Your task to perform on an android device: show emergency info Image 0: 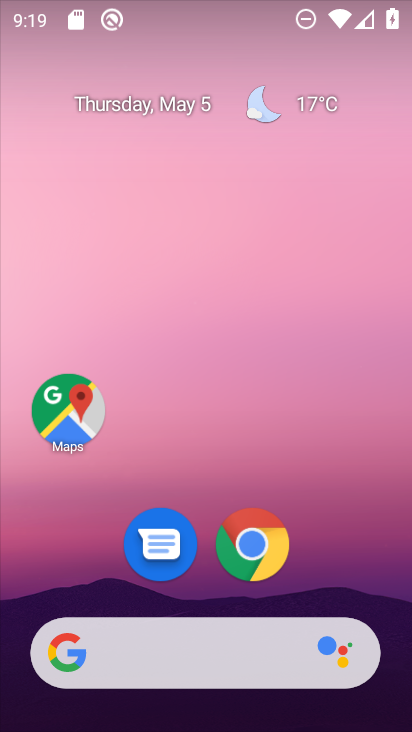
Step 0: drag from (391, 616) to (287, 48)
Your task to perform on an android device: show emergency info Image 1: 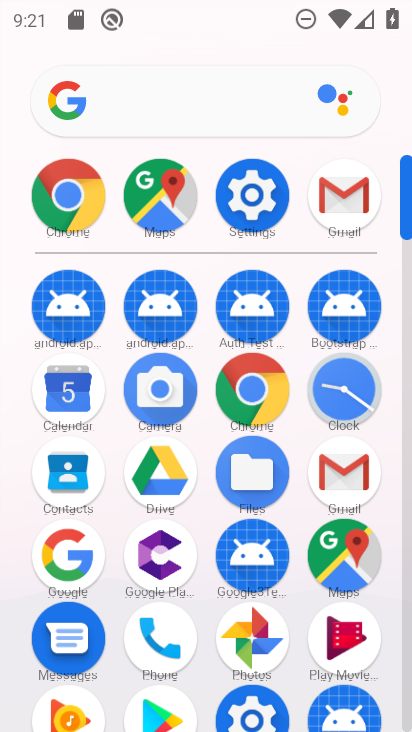
Step 1: click (263, 177)
Your task to perform on an android device: show emergency info Image 2: 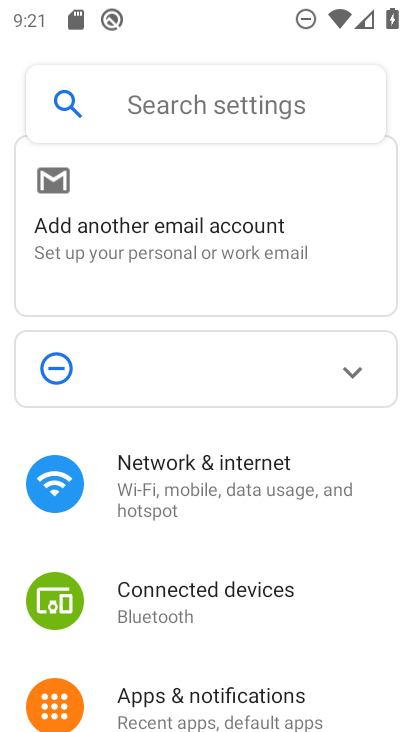
Step 2: drag from (161, 606) to (198, 262)
Your task to perform on an android device: show emergency info Image 3: 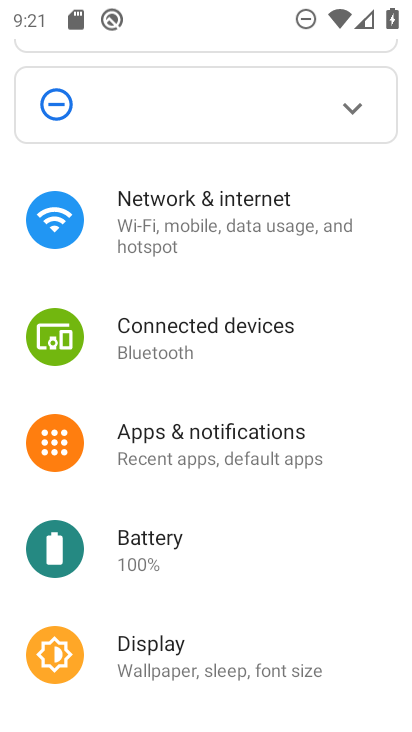
Step 3: drag from (206, 588) to (242, 276)
Your task to perform on an android device: show emergency info Image 4: 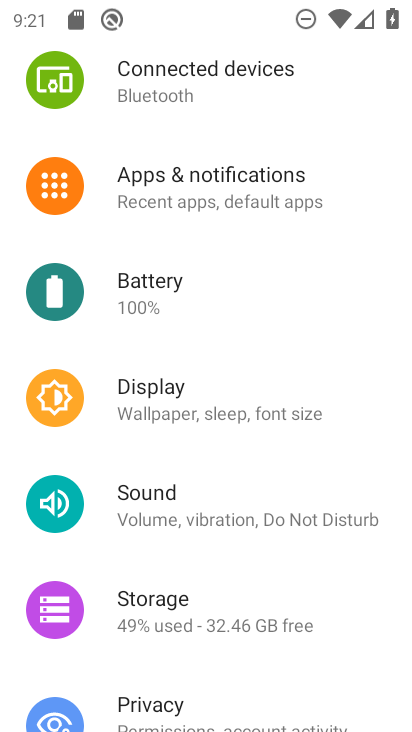
Step 4: drag from (230, 638) to (245, 236)
Your task to perform on an android device: show emergency info Image 5: 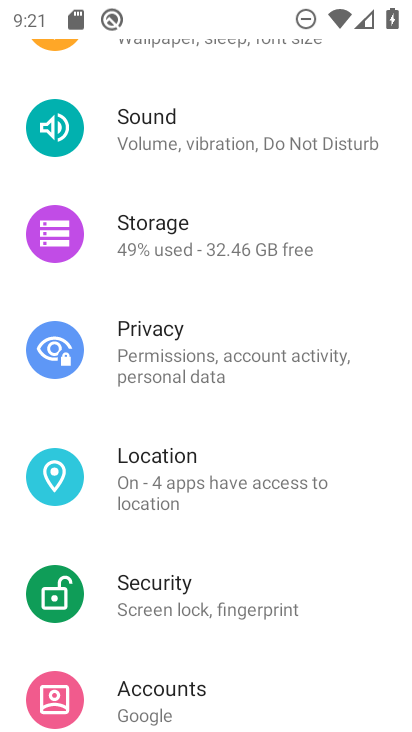
Step 5: drag from (208, 656) to (249, 318)
Your task to perform on an android device: show emergency info Image 6: 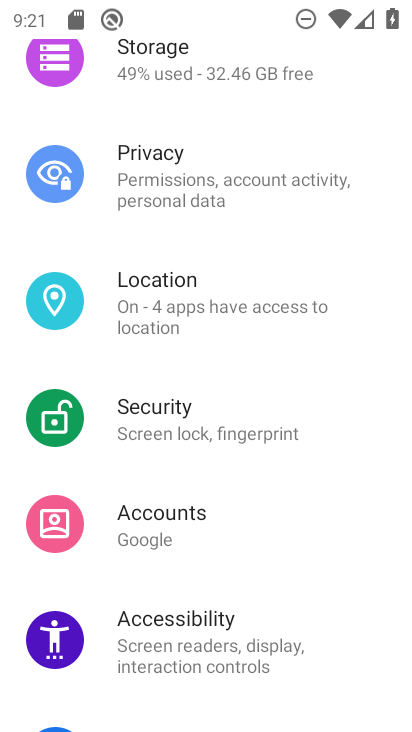
Step 6: drag from (237, 653) to (267, 315)
Your task to perform on an android device: show emergency info Image 7: 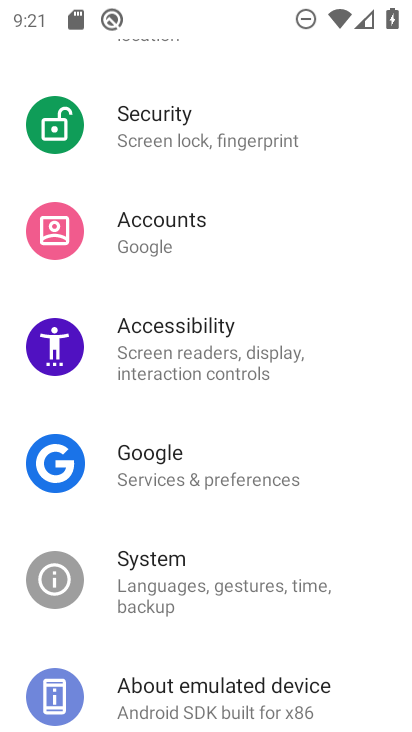
Step 7: click (211, 687)
Your task to perform on an android device: show emergency info Image 8: 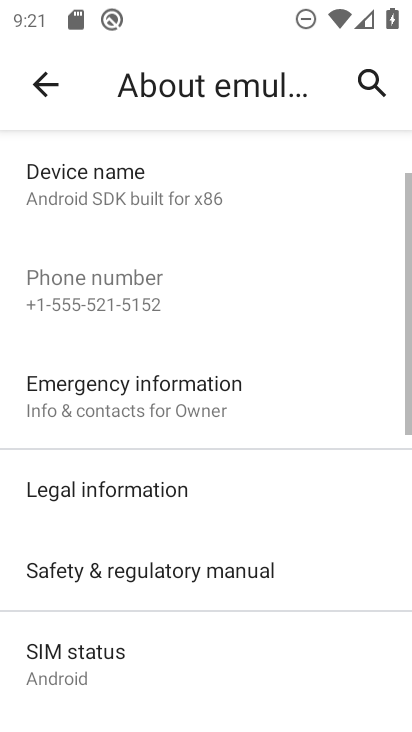
Step 8: click (210, 402)
Your task to perform on an android device: show emergency info Image 9: 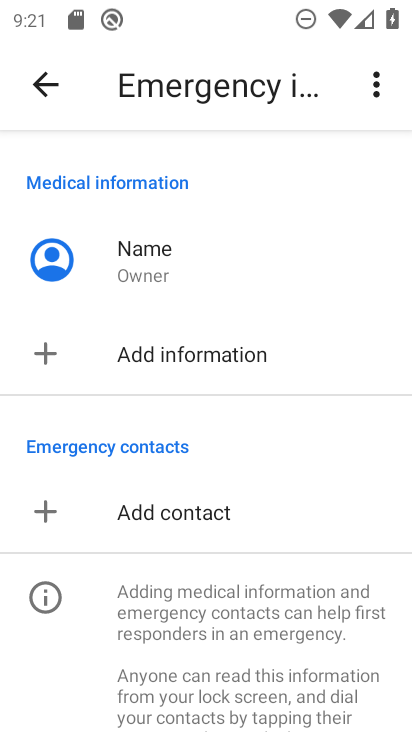
Step 9: task complete